Your task to perform on an android device: change notifications settings Image 0: 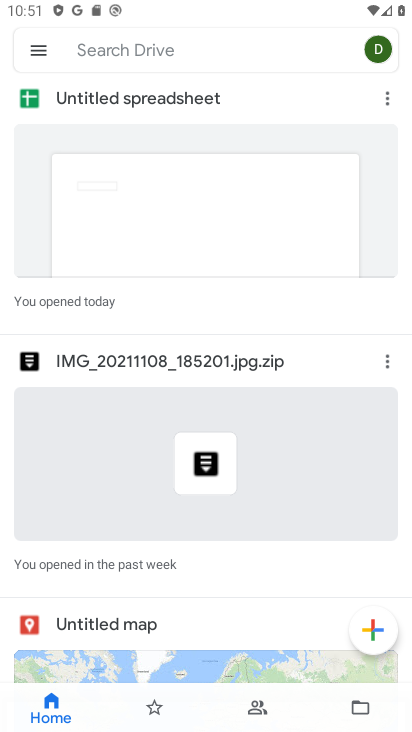
Step 0: press home button
Your task to perform on an android device: change notifications settings Image 1: 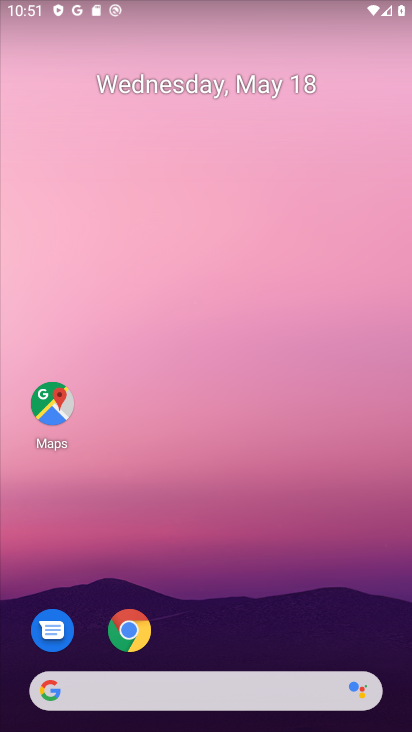
Step 1: drag from (276, 646) to (251, 112)
Your task to perform on an android device: change notifications settings Image 2: 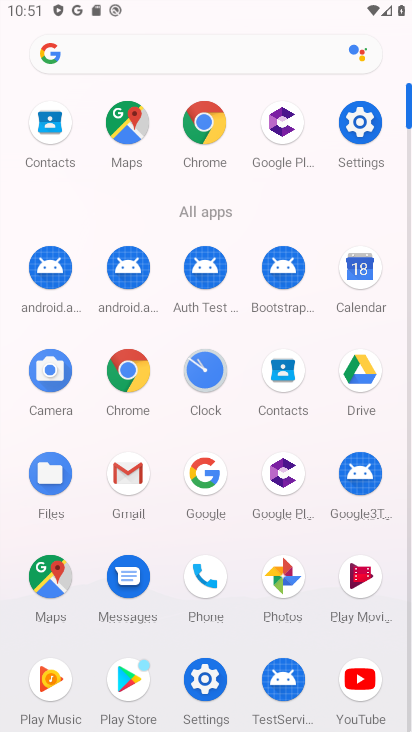
Step 2: click (350, 123)
Your task to perform on an android device: change notifications settings Image 3: 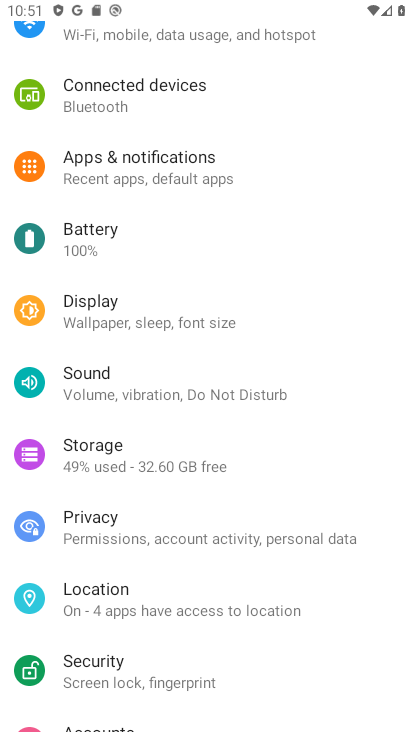
Step 3: drag from (197, 622) to (170, 184)
Your task to perform on an android device: change notifications settings Image 4: 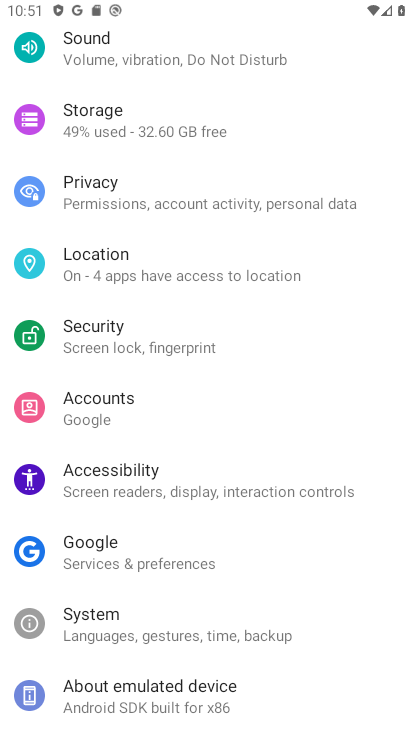
Step 4: drag from (187, 213) to (172, 634)
Your task to perform on an android device: change notifications settings Image 5: 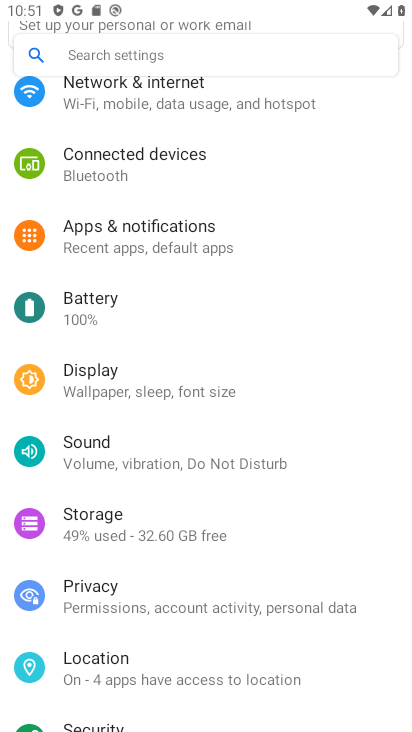
Step 5: click (164, 223)
Your task to perform on an android device: change notifications settings Image 6: 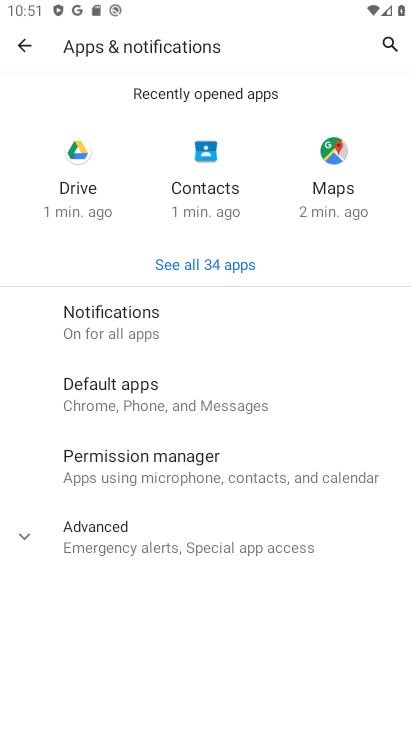
Step 6: click (160, 327)
Your task to perform on an android device: change notifications settings Image 7: 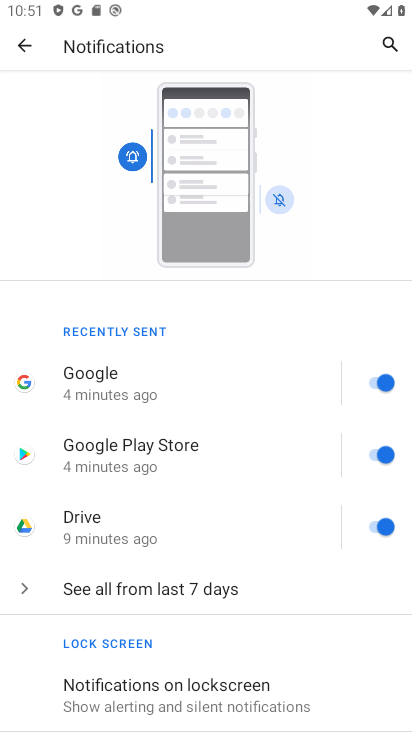
Step 7: click (380, 387)
Your task to perform on an android device: change notifications settings Image 8: 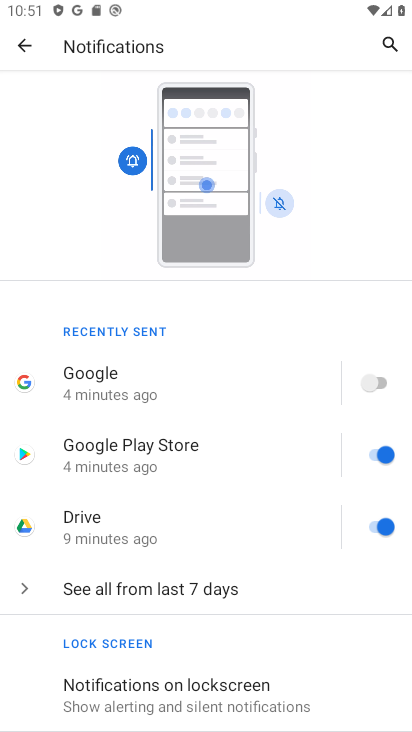
Step 8: click (381, 460)
Your task to perform on an android device: change notifications settings Image 9: 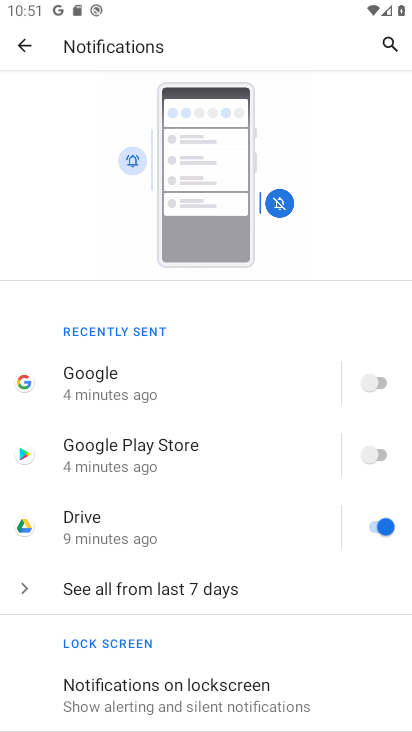
Step 9: task complete